Your task to perform on an android device: What's the weather? Image 0: 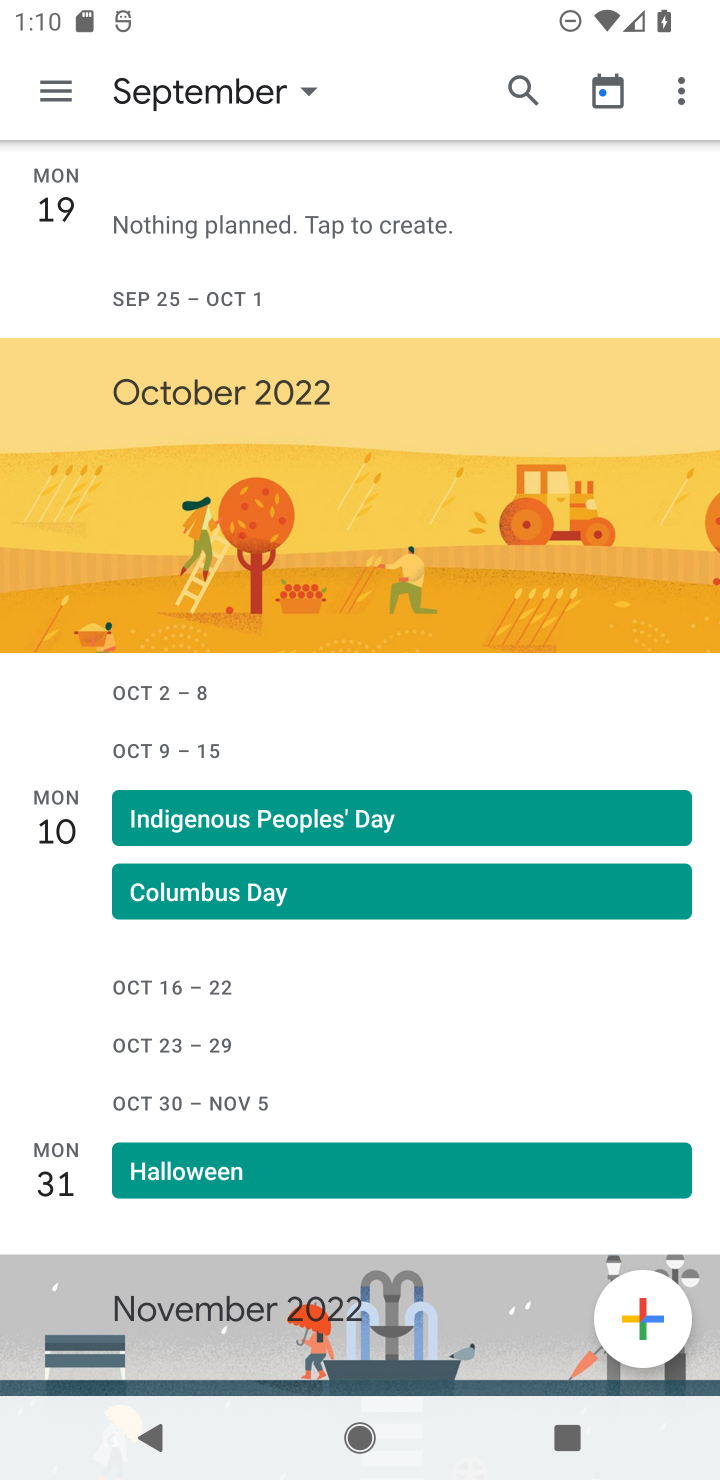
Step 0: press home button
Your task to perform on an android device: What's the weather? Image 1: 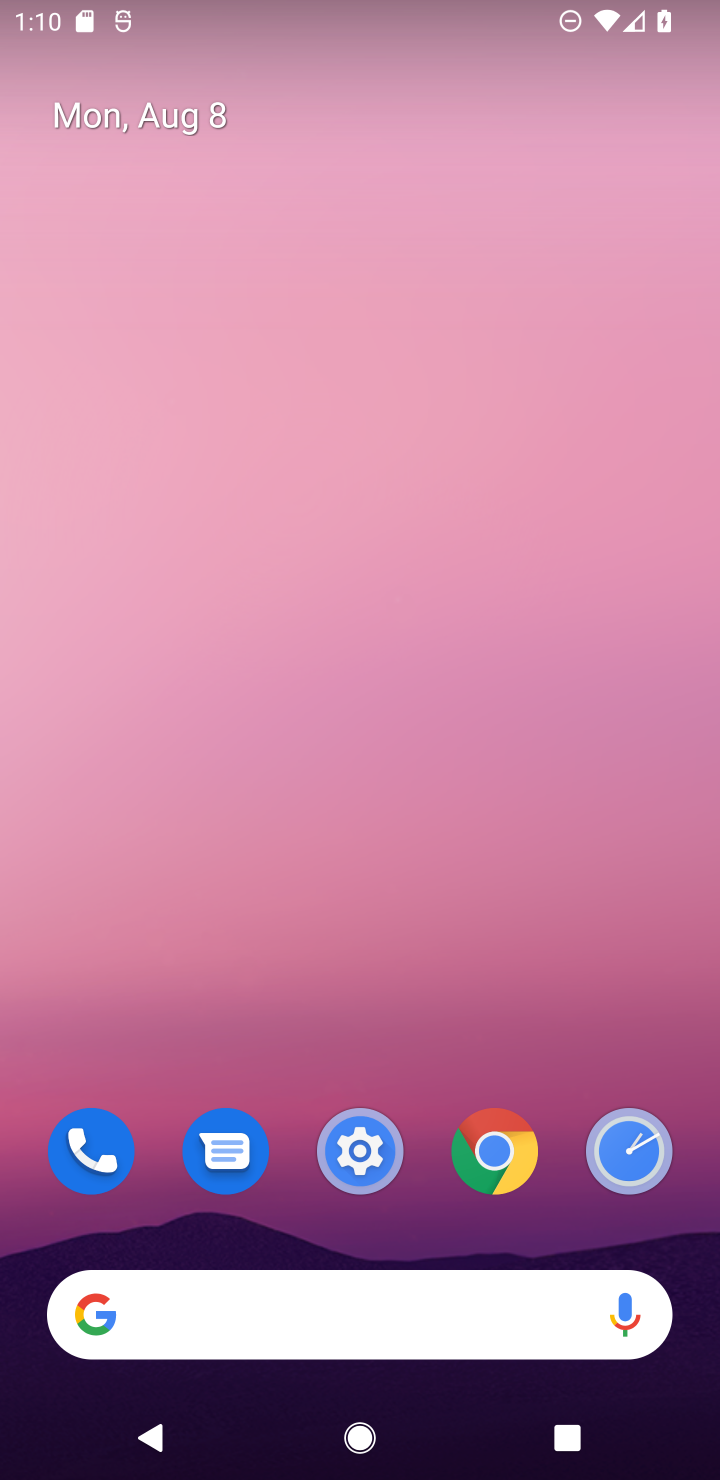
Step 1: drag from (256, 1205) to (332, 680)
Your task to perform on an android device: What's the weather? Image 2: 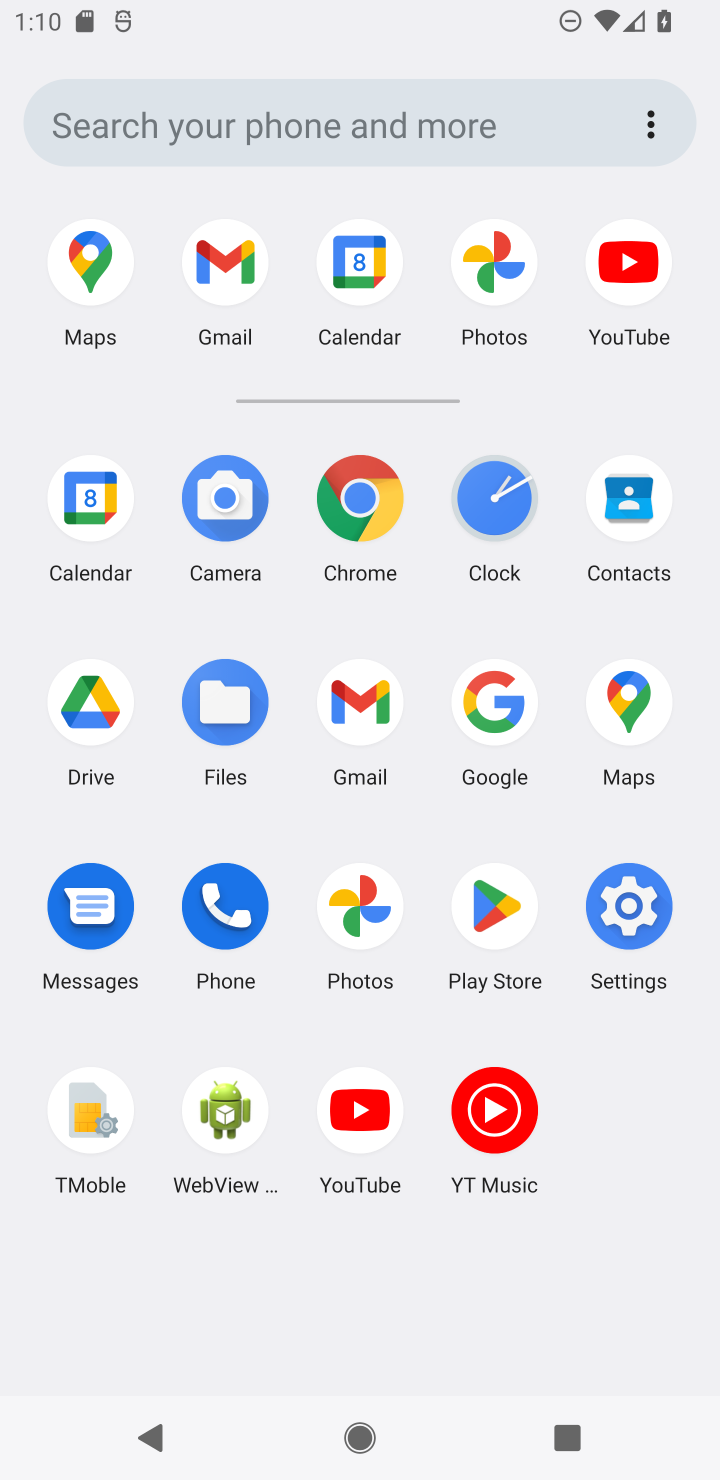
Step 2: click (488, 717)
Your task to perform on an android device: What's the weather? Image 3: 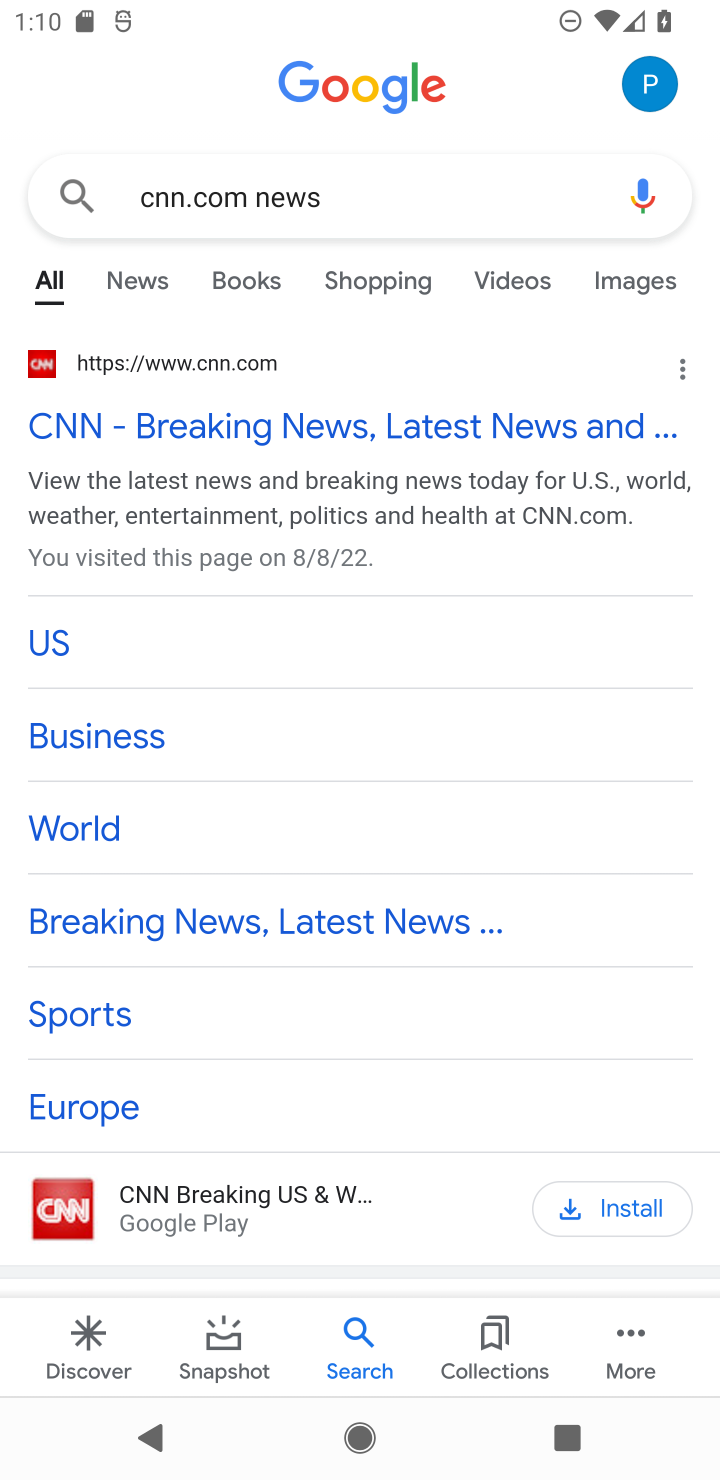
Step 3: click (317, 197)
Your task to perform on an android device: What's the weather? Image 4: 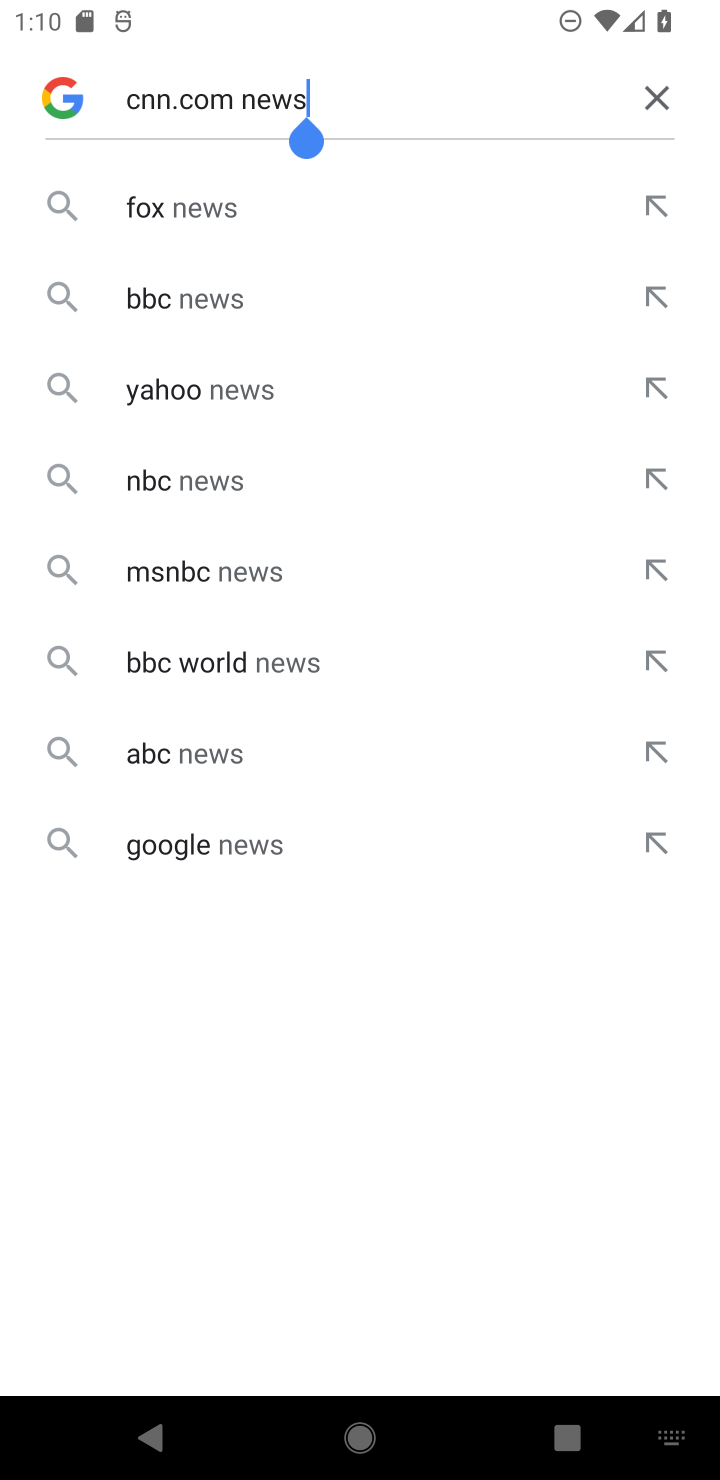
Step 4: click (672, 87)
Your task to perform on an android device: What's the weather? Image 5: 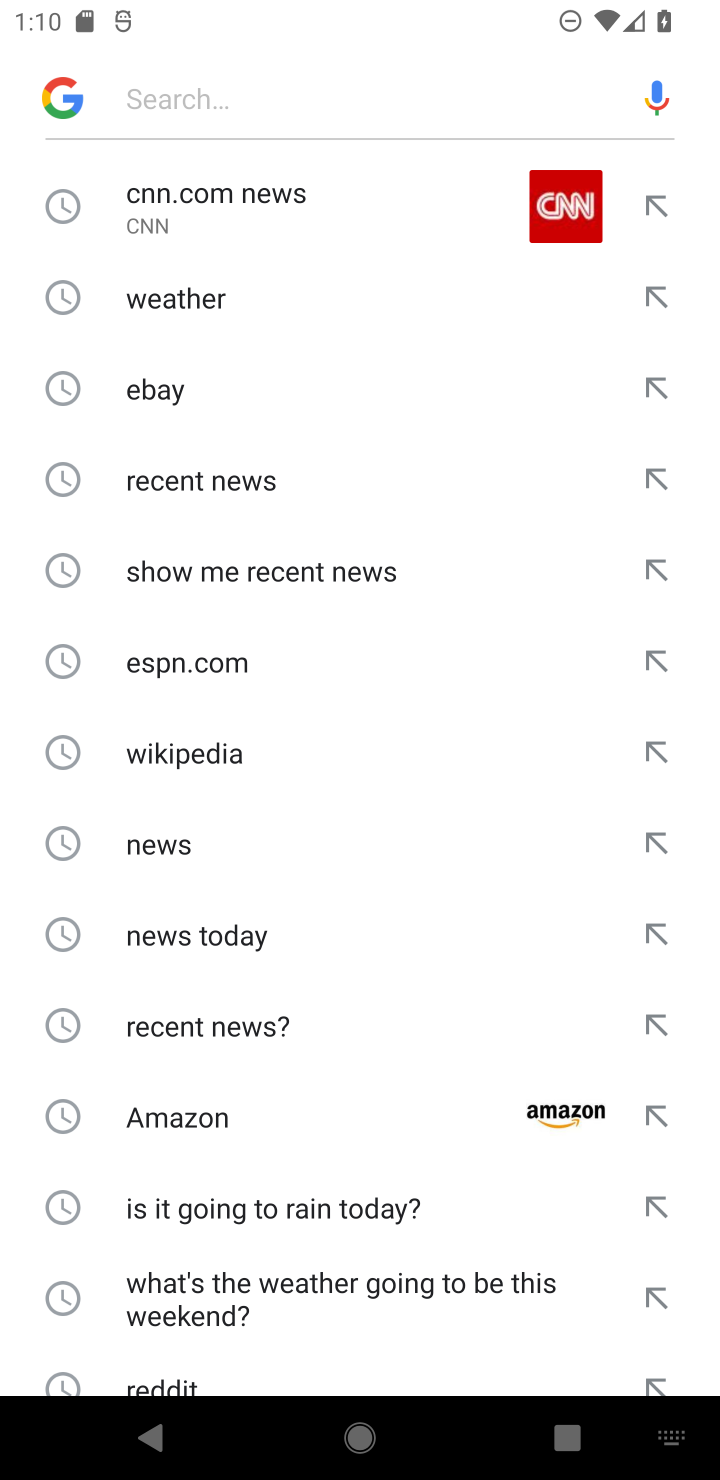
Step 5: click (226, 315)
Your task to perform on an android device: What's the weather? Image 6: 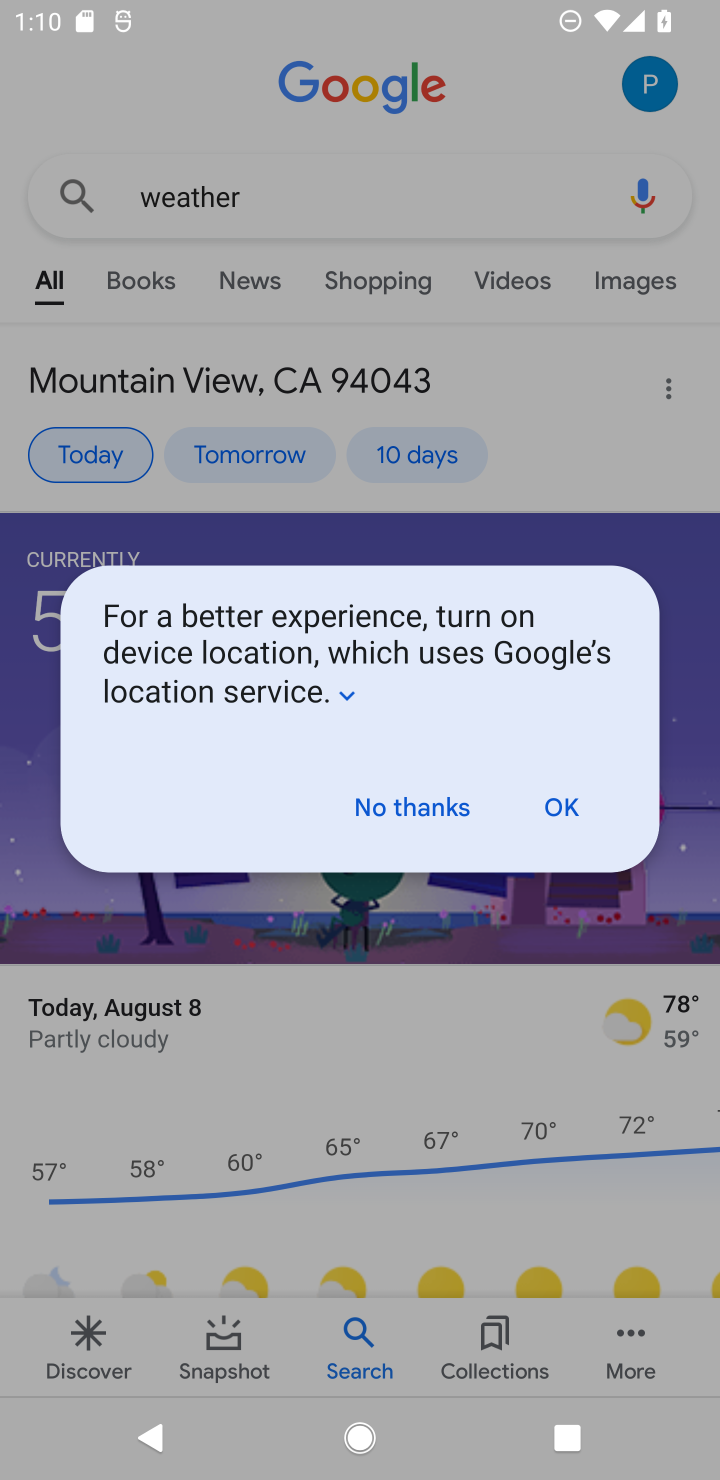
Step 6: click (554, 805)
Your task to perform on an android device: What's the weather? Image 7: 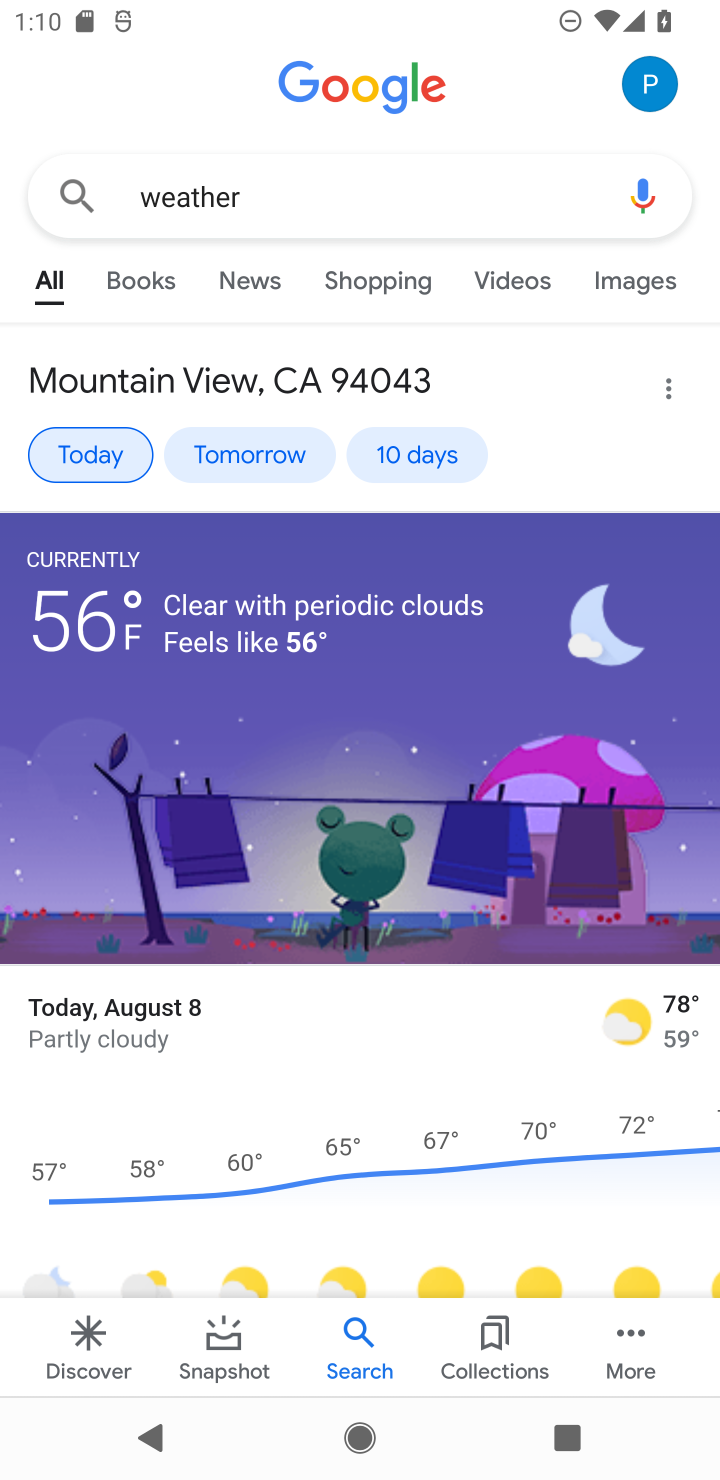
Step 7: task complete